Your task to perform on an android device: turn off improve location accuracy Image 0: 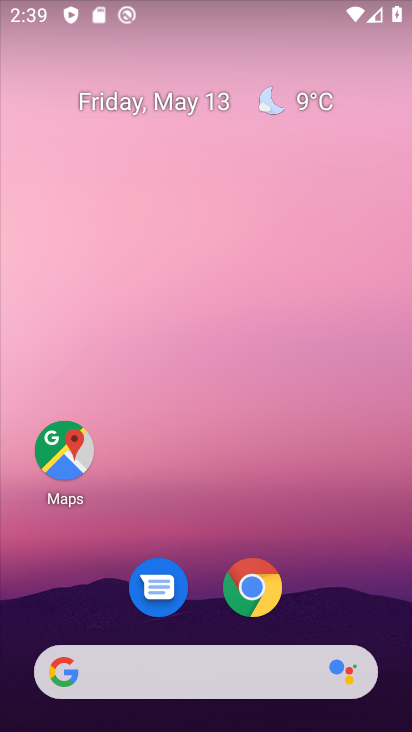
Step 0: drag from (333, 595) to (316, 182)
Your task to perform on an android device: turn off improve location accuracy Image 1: 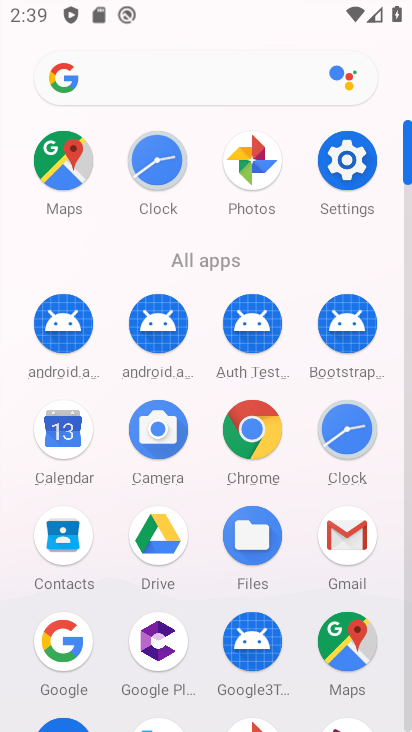
Step 1: click (337, 165)
Your task to perform on an android device: turn off improve location accuracy Image 2: 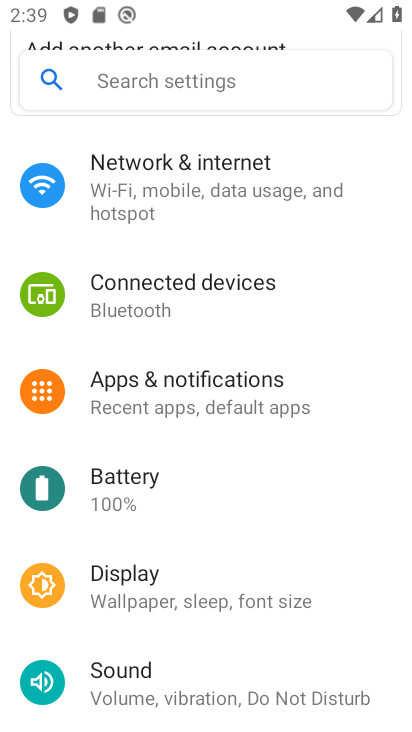
Step 2: drag from (273, 572) to (288, 115)
Your task to perform on an android device: turn off improve location accuracy Image 3: 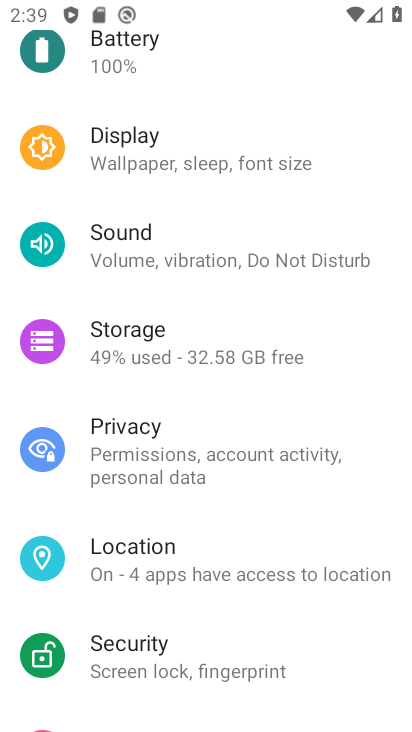
Step 3: click (207, 579)
Your task to perform on an android device: turn off improve location accuracy Image 4: 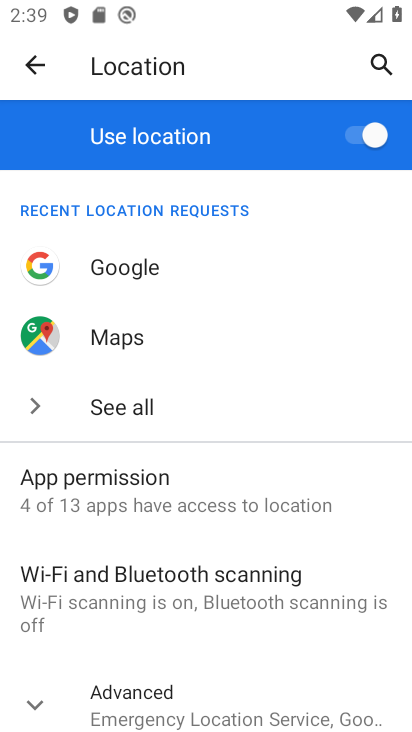
Step 4: drag from (232, 668) to (244, 361)
Your task to perform on an android device: turn off improve location accuracy Image 5: 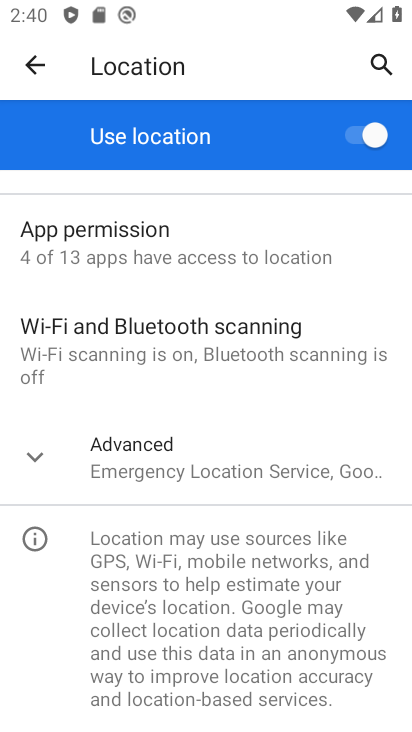
Step 5: drag from (242, 386) to (235, 550)
Your task to perform on an android device: turn off improve location accuracy Image 6: 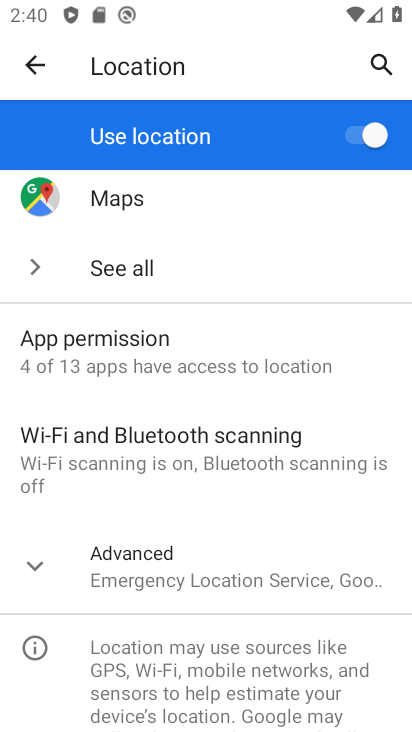
Step 6: click (44, 567)
Your task to perform on an android device: turn off improve location accuracy Image 7: 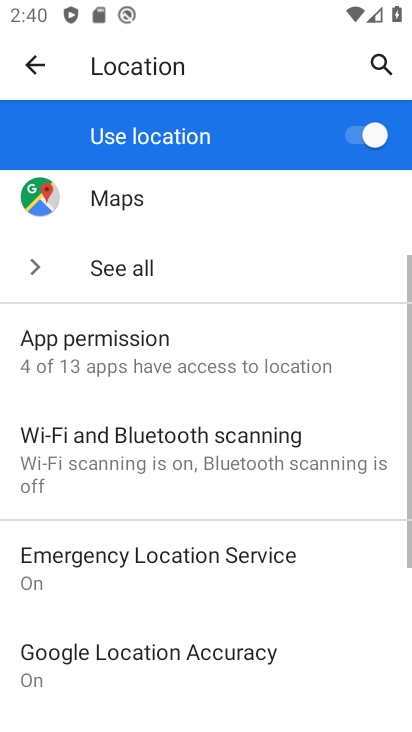
Step 7: drag from (207, 628) to (220, 404)
Your task to perform on an android device: turn off improve location accuracy Image 8: 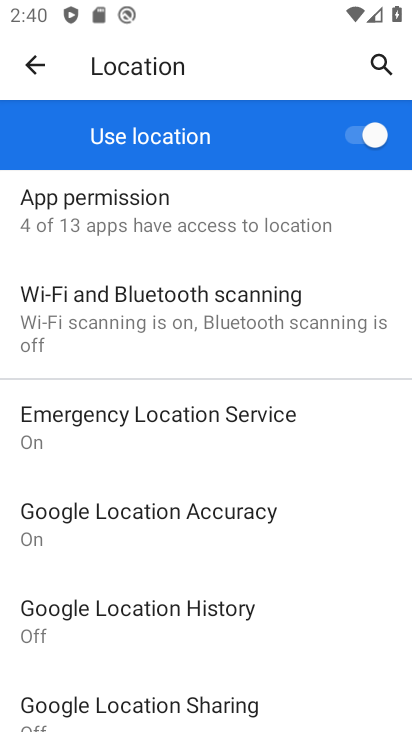
Step 8: click (194, 516)
Your task to perform on an android device: turn off improve location accuracy Image 9: 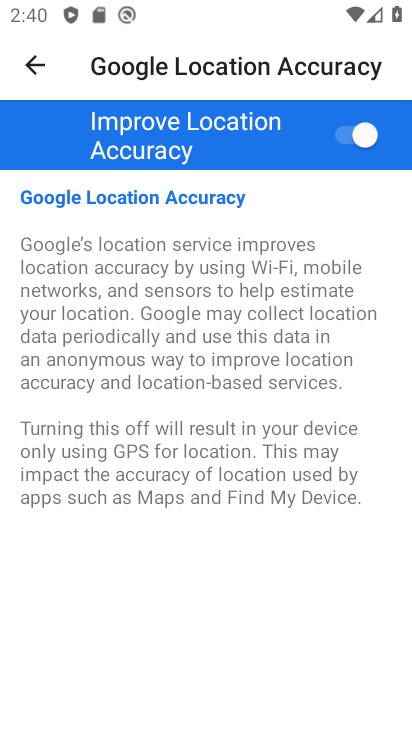
Step 9: click (364, 134)
Your task to perform on an android device: turn off improve location accuracy Image 10: 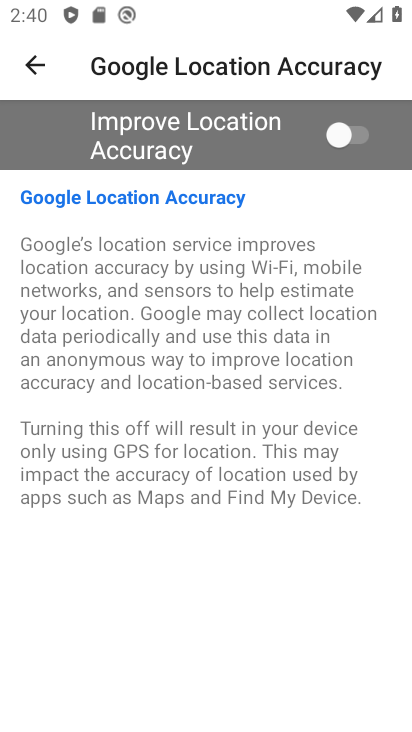
Step 10: task complete